Your task to perform on an android device: allow cookies in the chrome app Image 0: 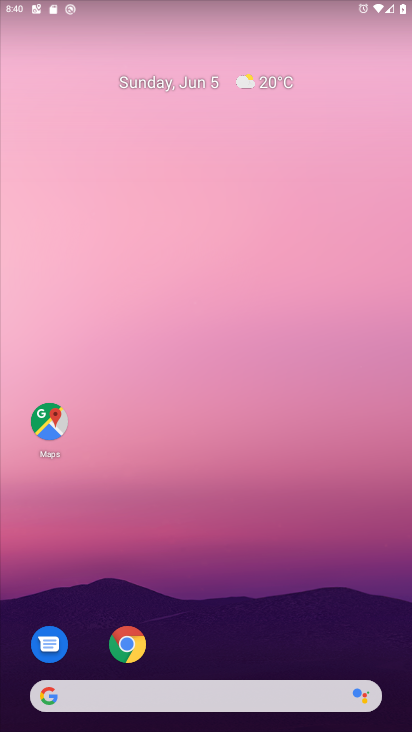
Step 0: drag from (240, 618) to (252, 177)
Your task to perform on an android device: allow cookies in the chrome app Image 1: 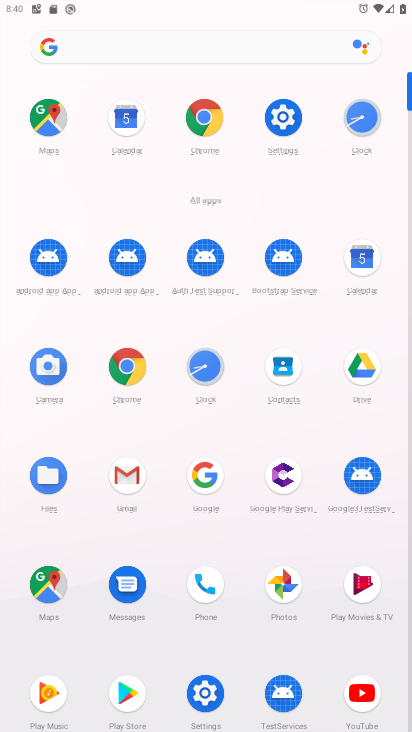
Step 1: click (118, 355)
Your task to perform on an android device: allow cookies in the chrome app Image 2: 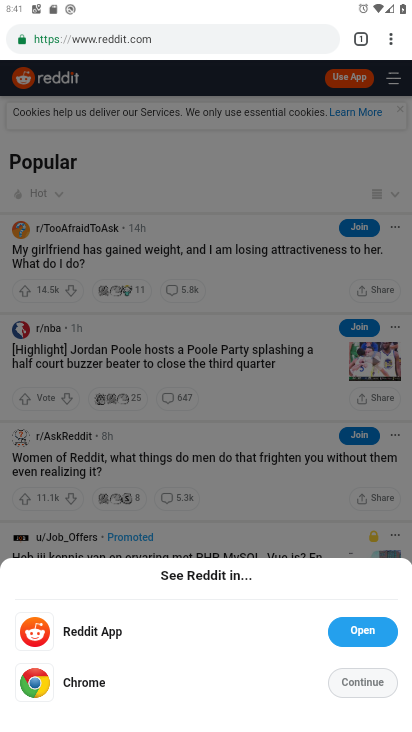
Step 2: drag from (394, 37) to (249, 482)
Your task to perform on an android device: allow cookies in the chrome app Image 3: 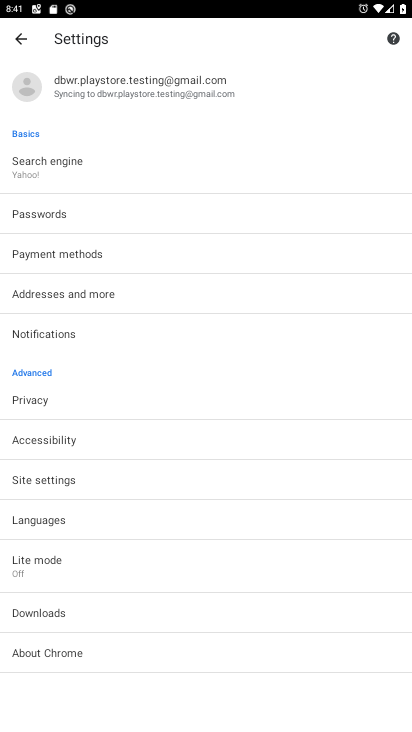
Step 3: click (123, 478)
Your task to perform on an android device: allow cookies in the chrome app Image 4: 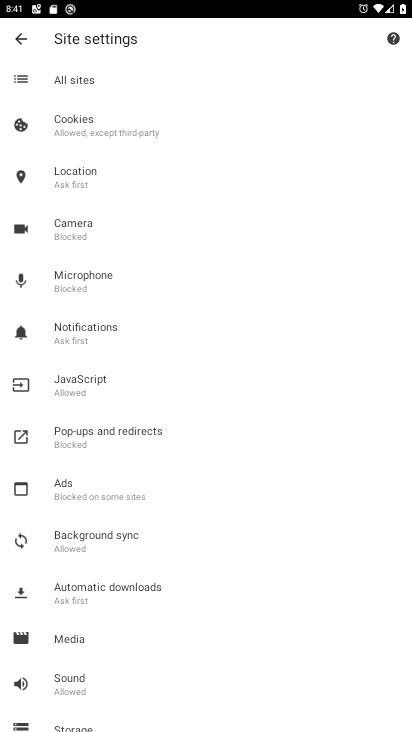
Step 4: click (116, 113)
Your task to perform on an android device: allow cookies in the chrome app Image 5: 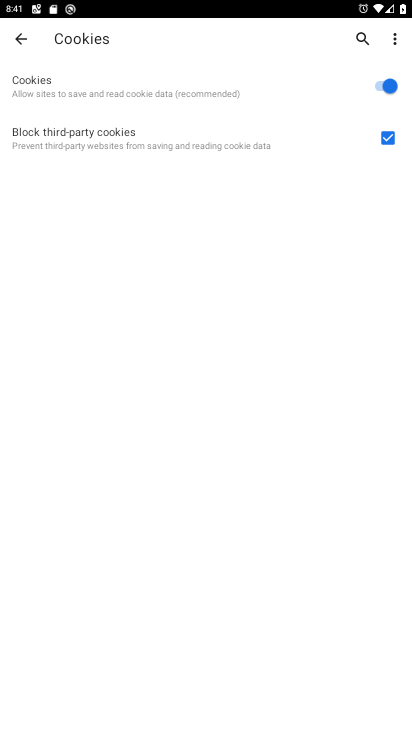
Step 5: task complete